Your task to perform on an android device: Check the weather Image 0: 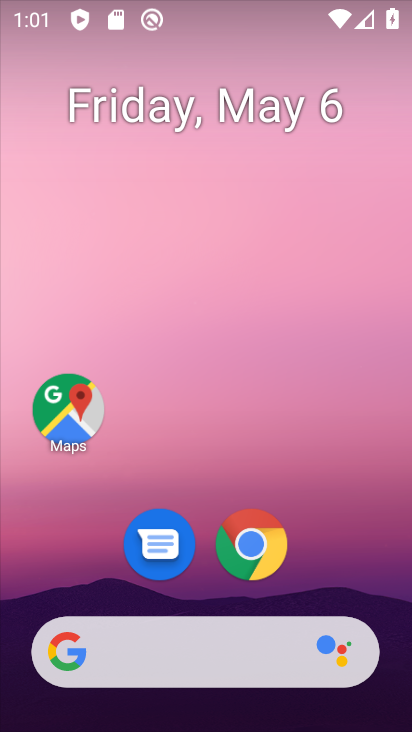
Step 0: drag from (0, 255) to (341, 239)
Your task to perform on an android device: Check the weather Image 1: 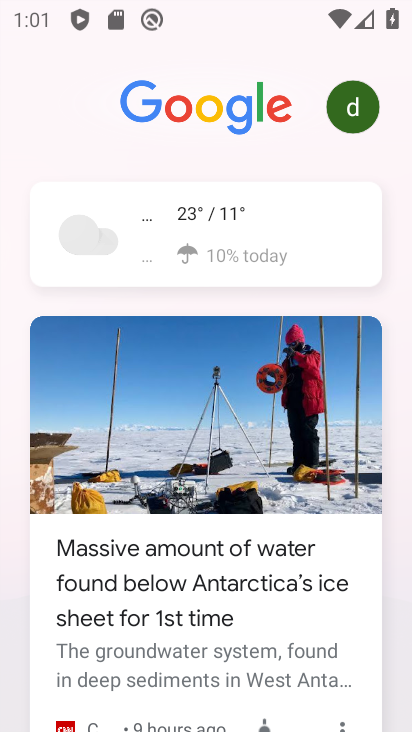
Step 1: click (200, 224)
Your task to perform on an android device: Check the weather Image 2: 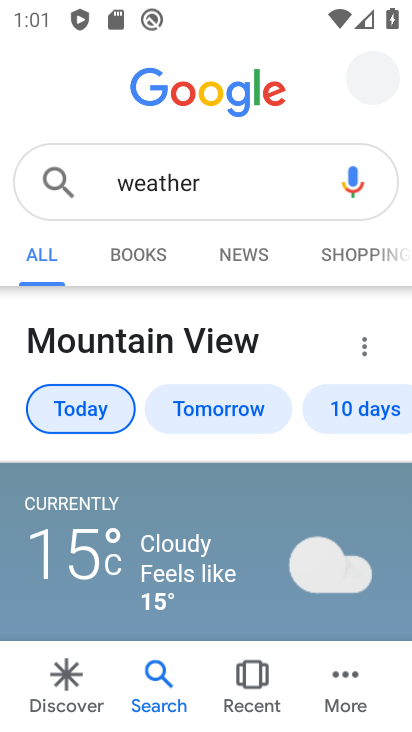
Step 2: task complete